Your task to perform on an android device: add a contact Image 0: 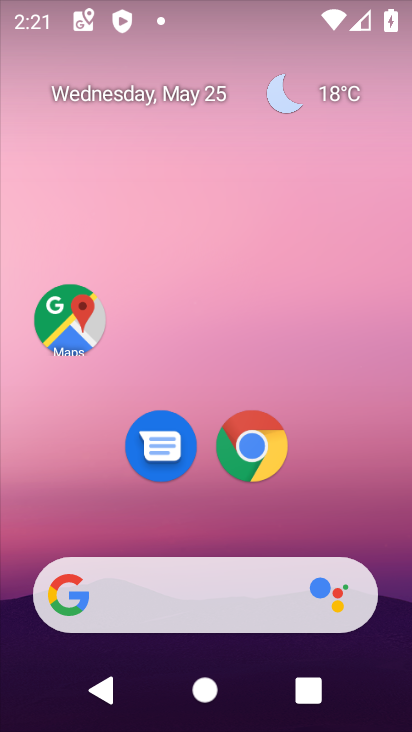
Step 0: drag from (274, 577) to (289, 154)
Your task to perform on an android device: add a contact Image 1: 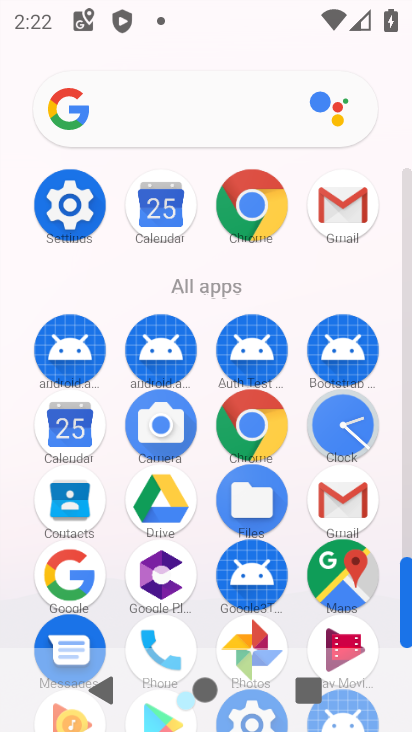
Step 1: click (86, 514)
Your task to perform on an android device: add a contact Image 2: 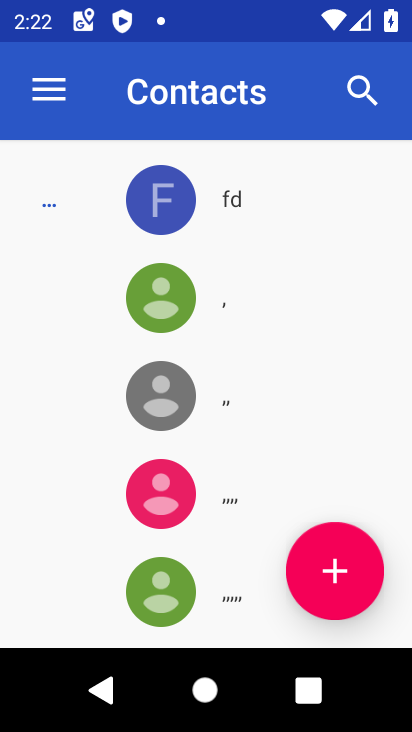
Step 2: click (351, 538)
Your task to perform on an android device: add a contact Image 3: 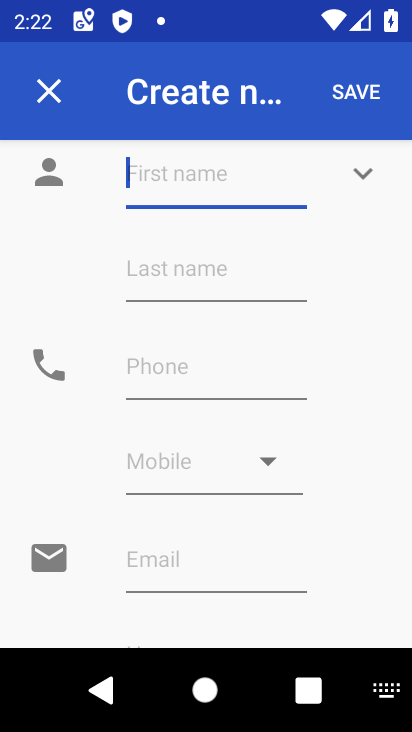
Step 3: type "dfgsf"
Your task to perform on an android device: add a contact Image 4: 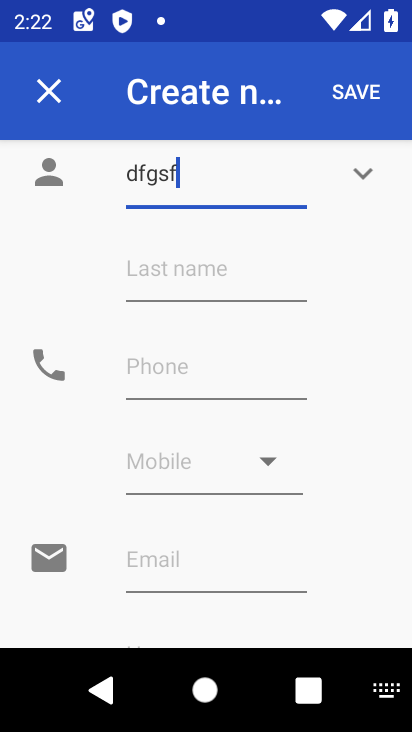
Step 4: click (226, 363)
Your task to perform on an android device: add a contact Image 5: 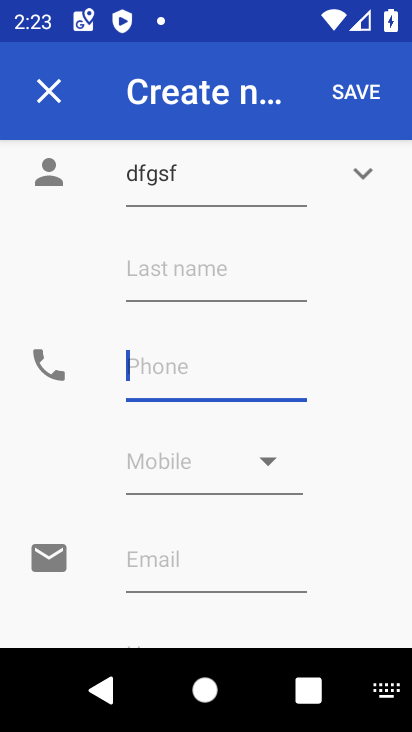
Step 5: type "4356786543"
Your task to perform on an android device: add a contact Image 6: 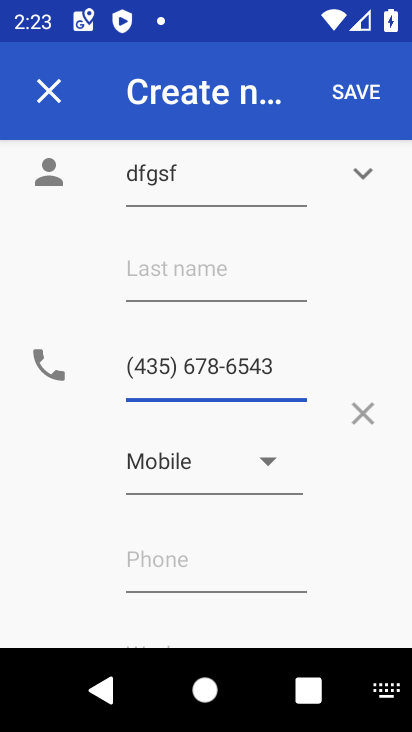
Step 6: click (372, 90)
Your task to perform on an android device: add a contact Image 7: 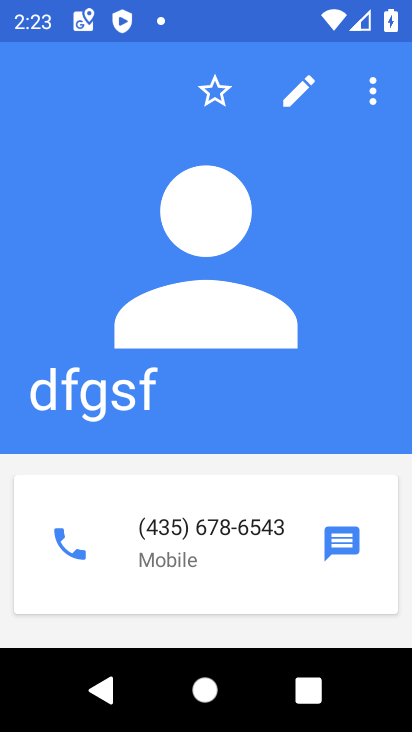
Step 7: task complete